Your task to perform on an android device: Open Google Maps and go to "Timeline" Image 0: 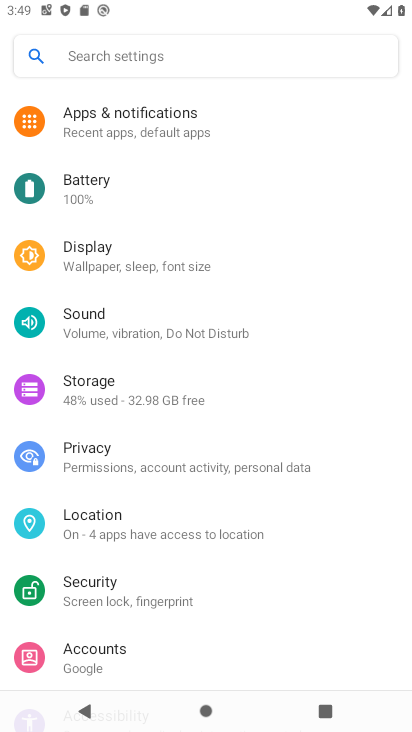
Step 0: press home button
Your task to perform on an android device: Open Google Maps and go to "Timeline" Image 1: 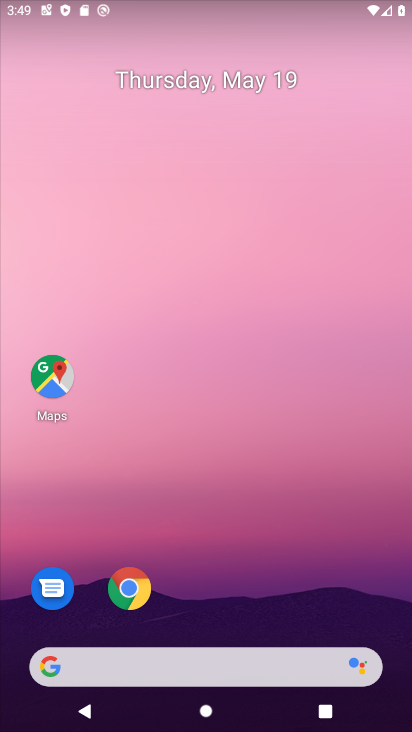
Step 1: click (48, 371)
Your task to perform on an android device: Open Google Maps and go to "Timeline" Image 2: 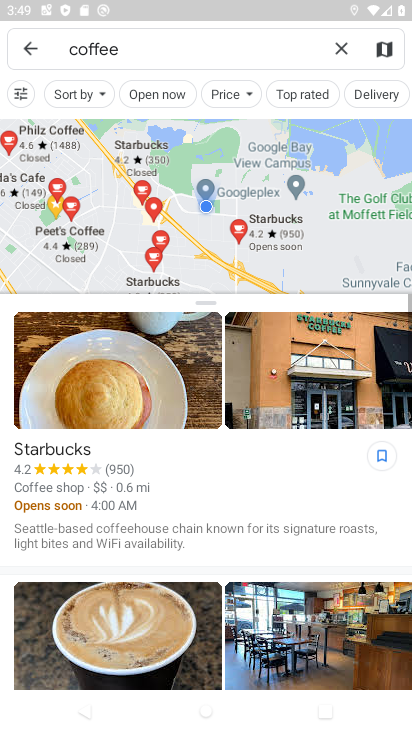
Step 2: click (35, 46)
Your task to perform on an android device: Open Google Maps and go to "Timeline" Image 3: 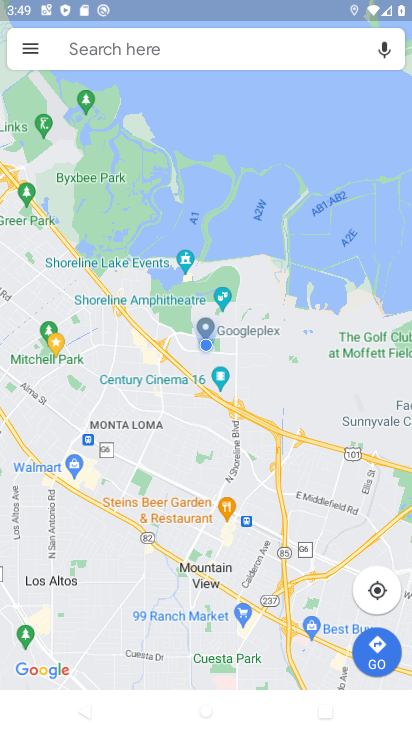
Step 3: click (33, 48)
Your task to perform on an android device: Open Google Maps and go to "Timeline" Image 4: 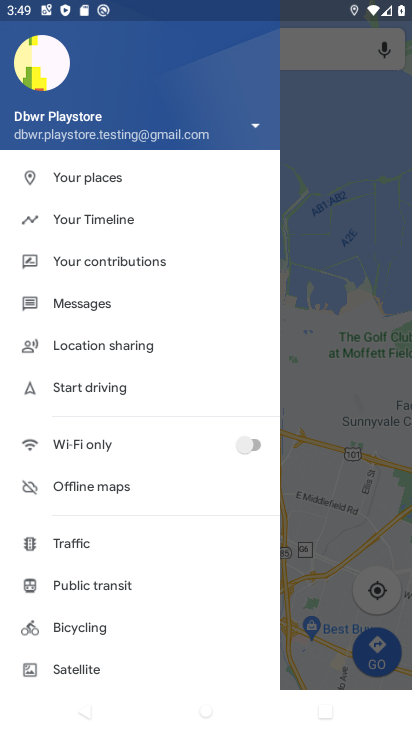
Step 4: click (33, 48)
Your task to perform on an android device: Open Google Maps and go to "Timeline" Image 5: 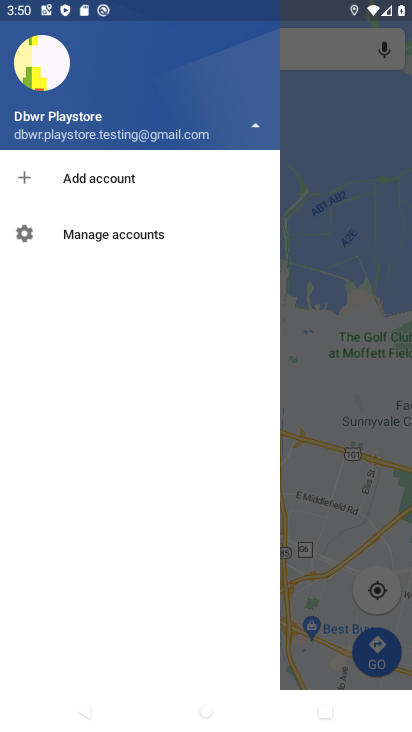
Step 5: click (397, 340)
Your task to perform on an android device: Open Google Maps and go to "Timeline" Image 6: 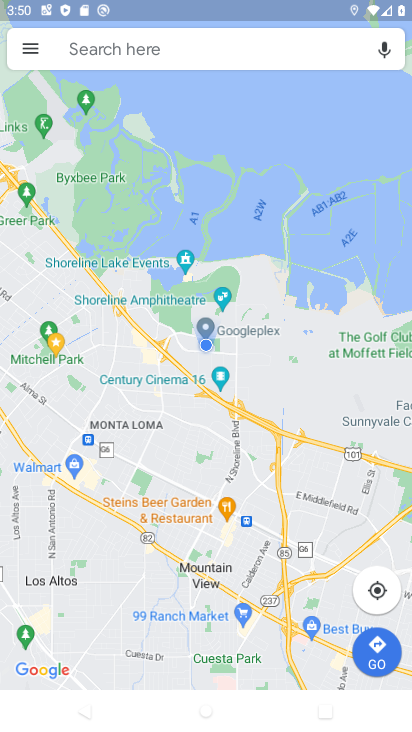
Step 6: click (22, 43)
Your task to perform on an android device: Open Google Maps and go to "Timeline" Image 7: 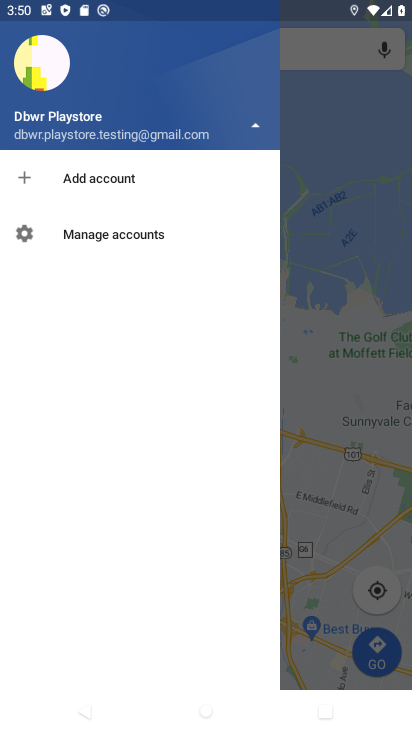
Step 7: click (114, 133)
Your task to perform on an android device: Open Google Maps and go to "Timeline" Image 8: 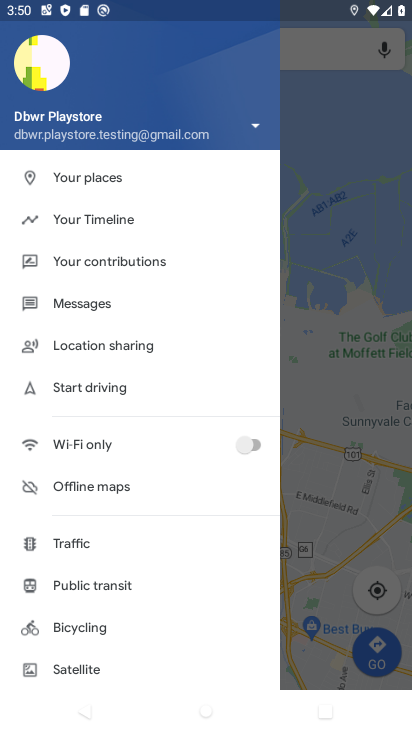
Step 8: click (85, 216)
Your task to perform on an android device: Open Google Maps and go to "Timeline" Image 9: 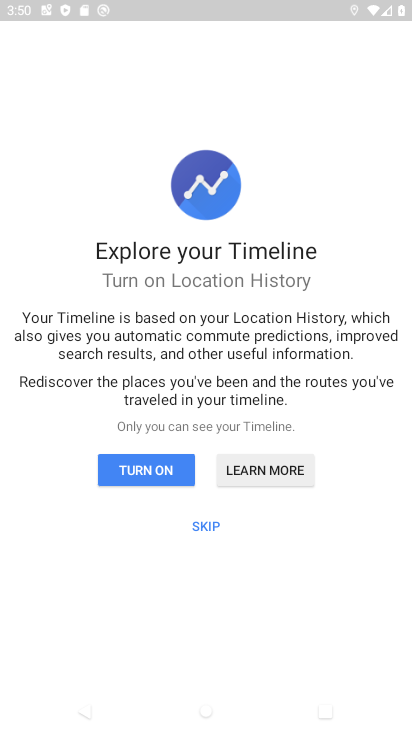
Step 9: click (161, 474)
Your task to perform on an android device: Open Google Maps and go to "Timeline" Image 10: 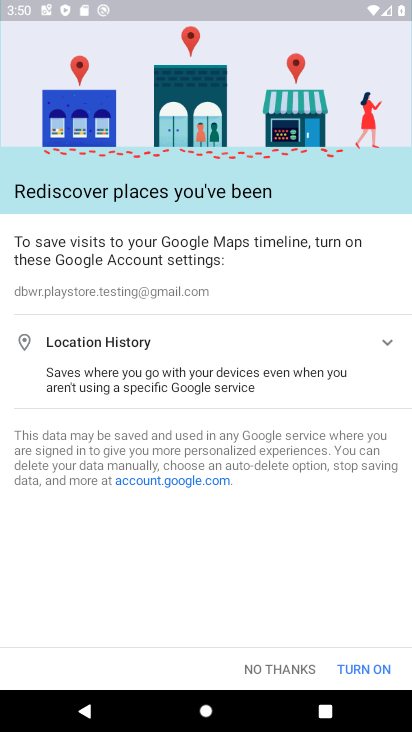
Step 10: click (348, 664)
Your task to perform on an android device: Open Google Maps and go to "Timeline" Image 11: 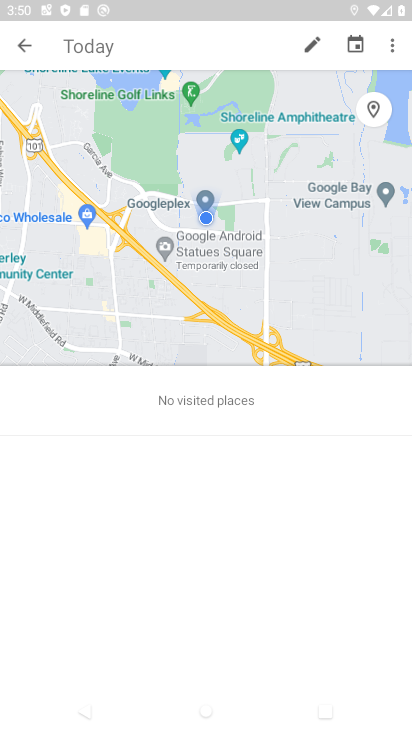
Step 11: task complete